Your task to perform on an android device: Go to Wikipedia Image 0: 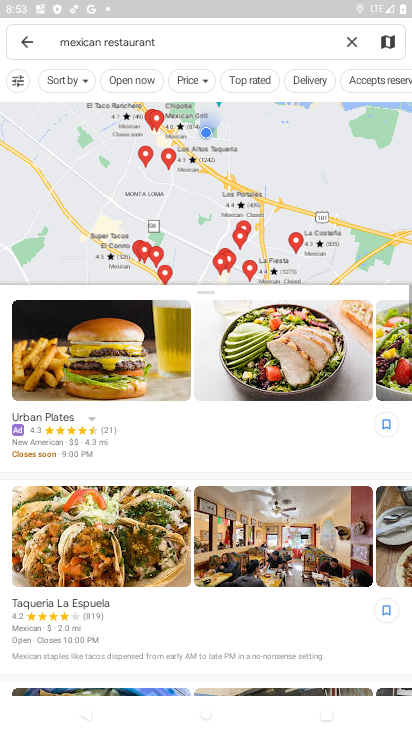
Step 0: press home button
Your task to perform on an android device: Go to Wikipedia Image 1: 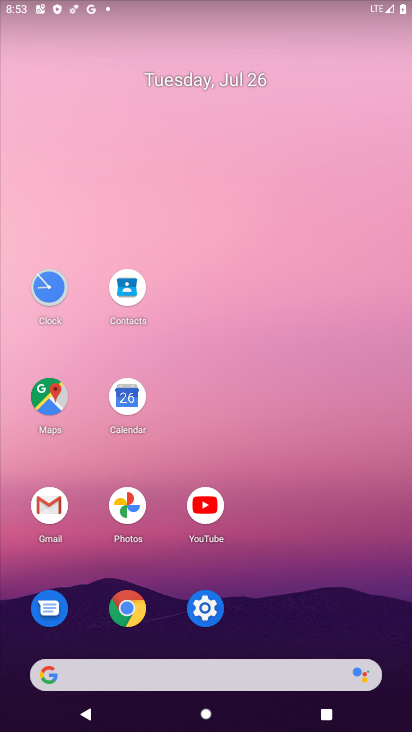
Step 1: click (129, 609)
Your task to perform on an android device: Go to Wikipedia Image 2: 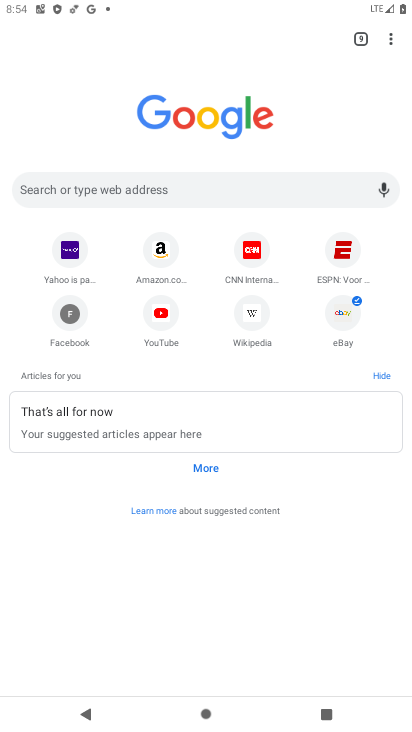
Step 2: click (252, 317)
Your task to perform on an android device: Go to Wikipedia Image 3: 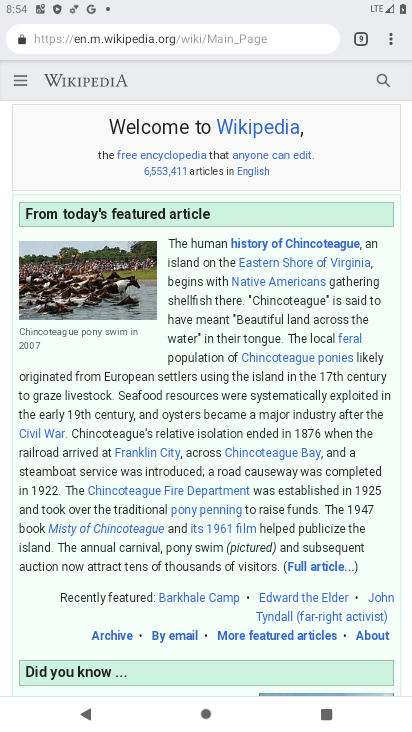
Step 3: task complete